Your task to perform on an android device: Open Google Chrome and click the shortcut for Amazon.com Image 0: 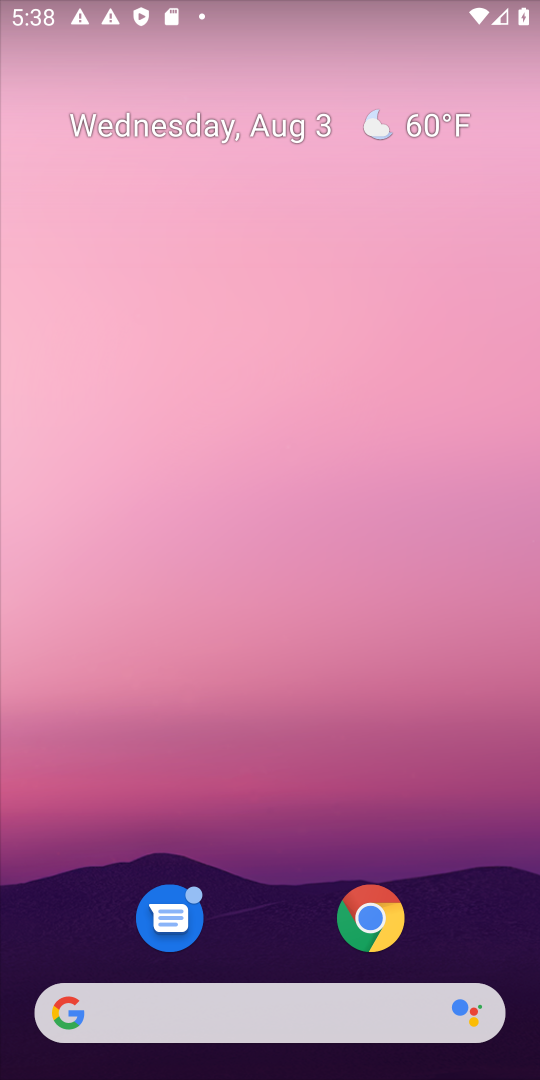
Step 0: click (369, 898)
Your task to perform on an android device: Open Google Chrome and click the shortcut for Amazon.com Image 1: 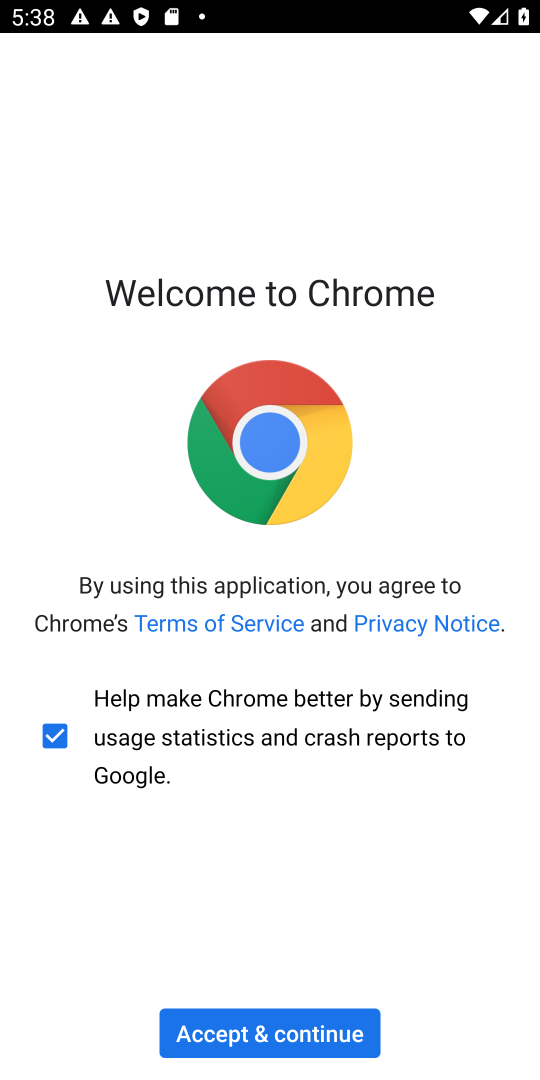
Step 1: click (332, 1033)
Your task to perform on an android device: Open Google Chrome and click the shortcut for Amazon.com Image 2: 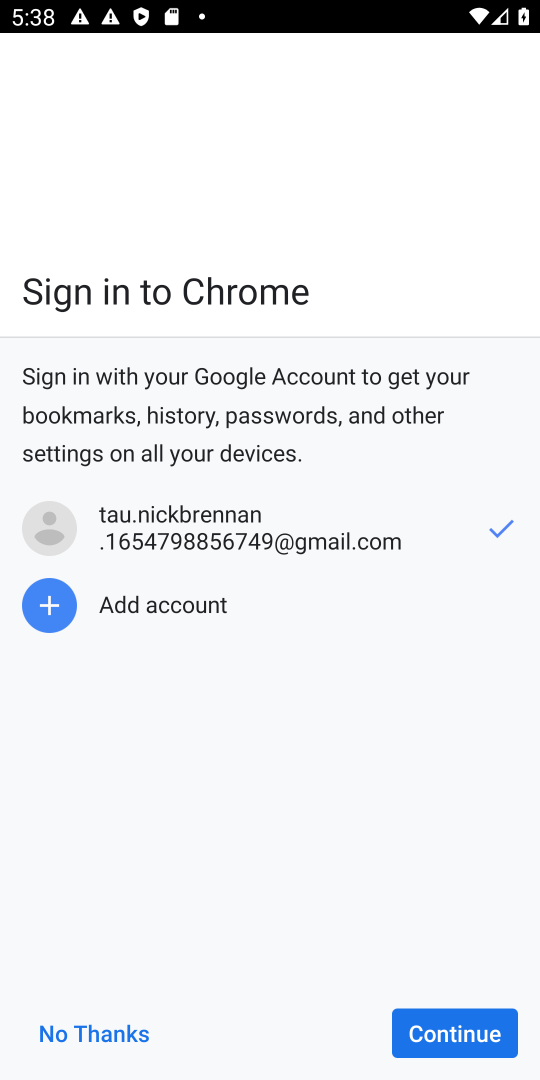
Step 2: click (462, 1033)
Your task to perform on an android device: Open Google Chrome and click the shortcut for Amazon.com Image 3: 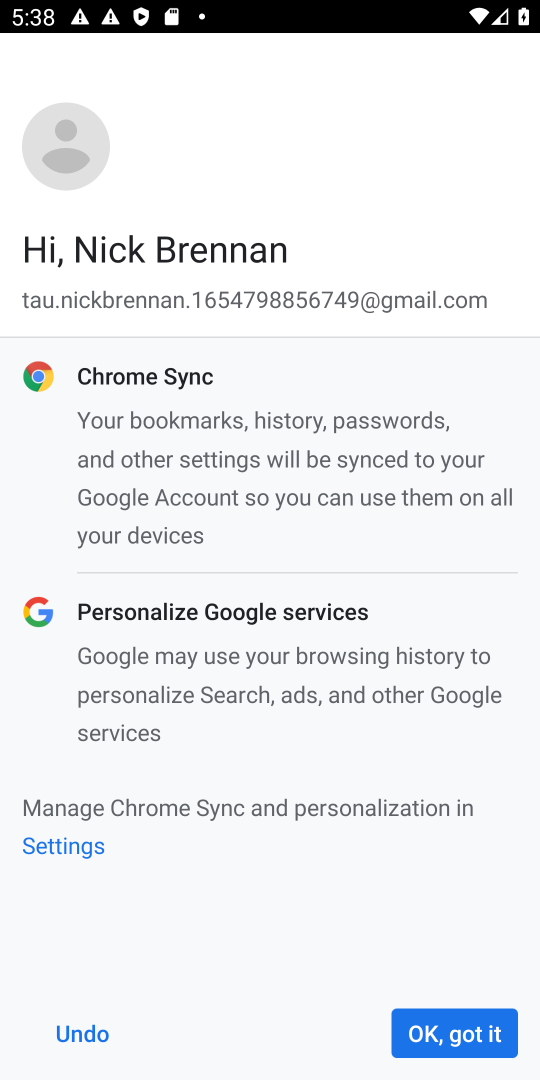
Step 3: click (462, 1033)
Your task to perform on an android device: Open Google Chrome and click the shortcut for Amazon.com Image 4: 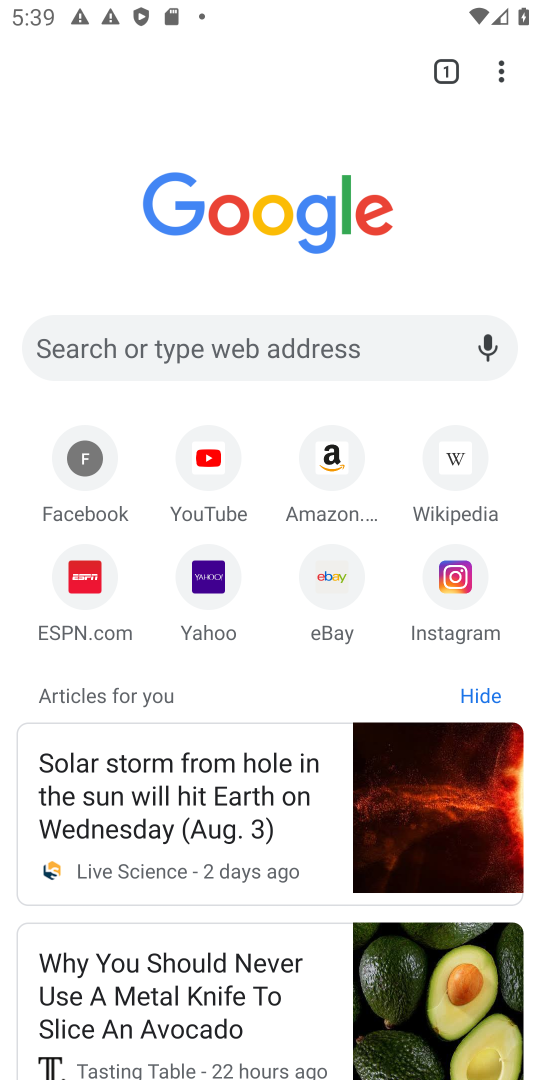
Step 4: click (339, 446)
Your task to perform on an android device: Open Google Chrome and click the shortcut for Amazon.com Image 5: 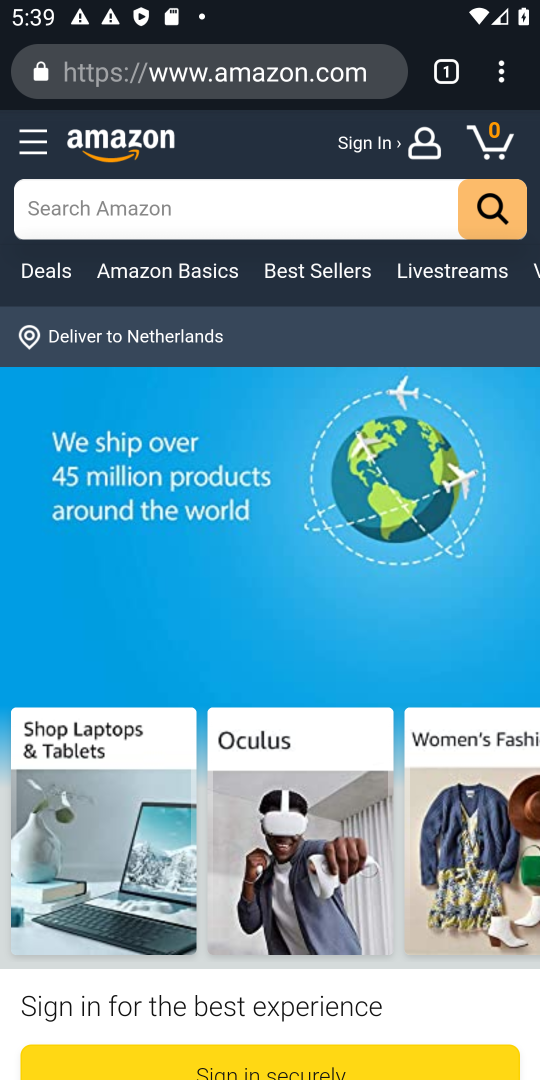
Step 5: task complete